Your task to perform on an android device: open wifi settings Image 0: 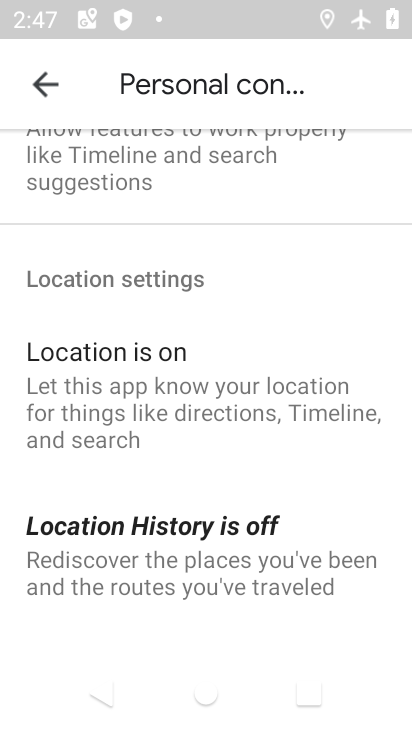
Step 0: press home button
Your task to perform on an android device: open wifi settings Image 1: 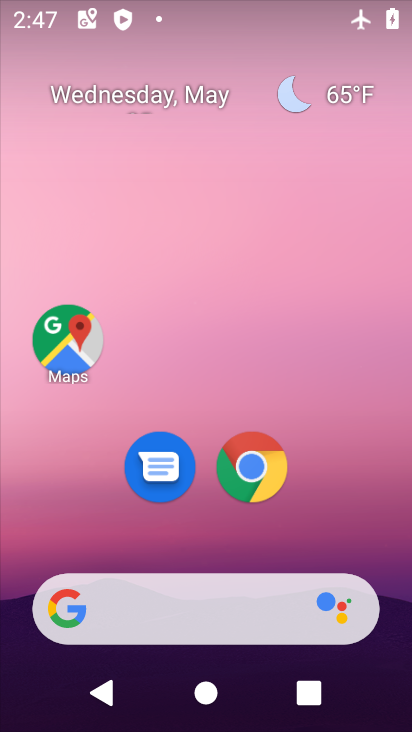
Step 1: drag from (280, 515) to (317, 207)
Your task to perform on an android device: open wifi settings Image 2: 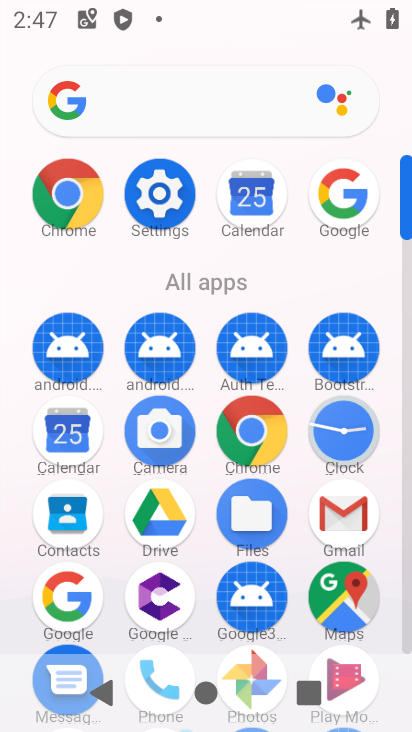
Step 2: click (140, 190)
Your task to perform on an android device: open wifi settings Image 3: 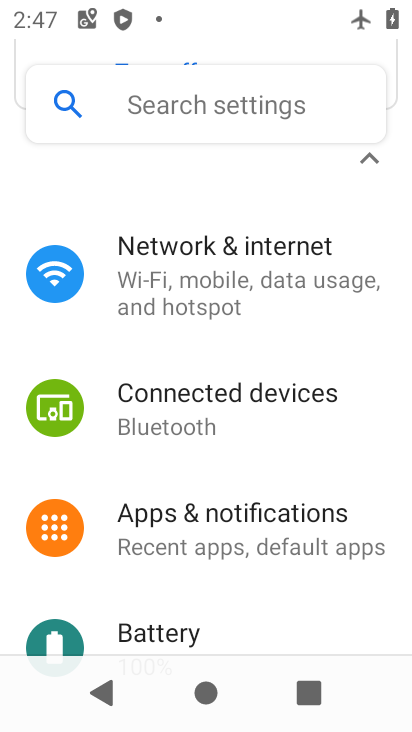
Step 3: click (166, 254)
Your task to perform on an android device: open wifi settings Image 4: 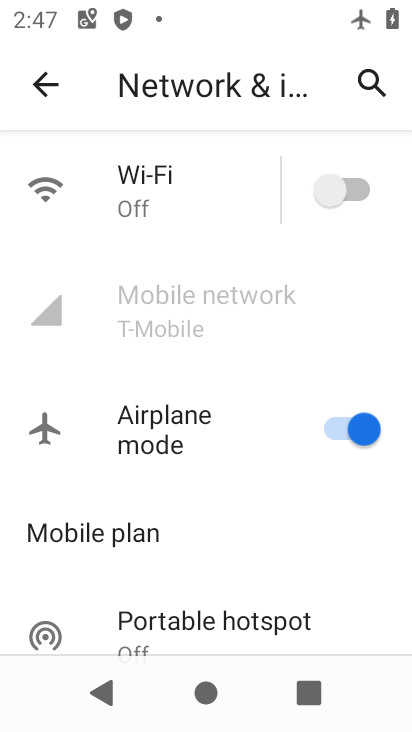
Step 4: task complete